Your task to perform on an android device: read, delete, or share a saved page in the chrome app Image 0: 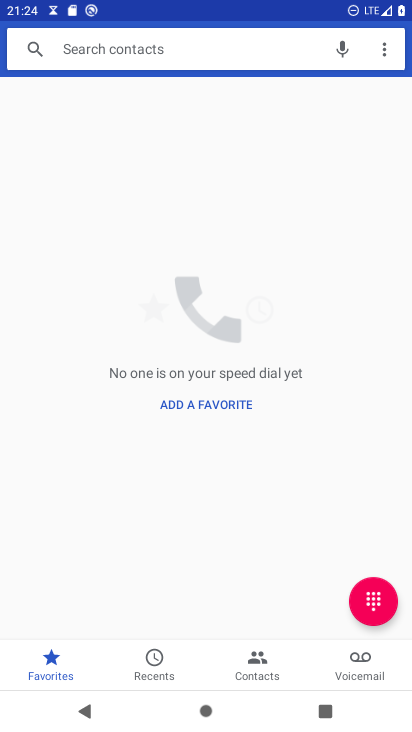
Step 0: press home button
Your task to perform on an android device: read, delete, or share a saved page in the chrome app Image 1: 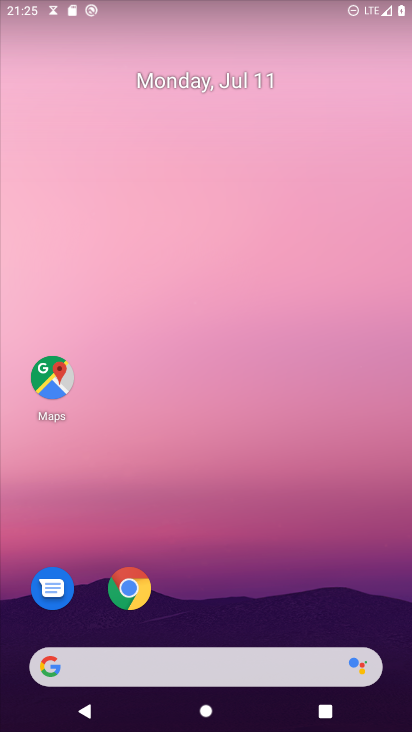
Step 1: press home button
Your task to perform on an android device: read, delete, or share a saved page in the chrome app Image 2: 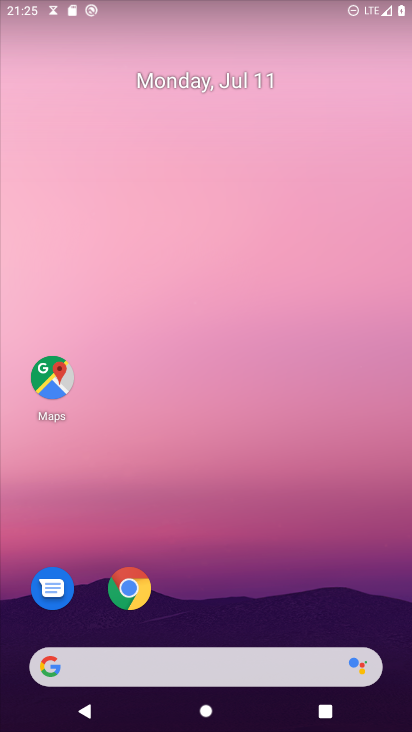
Step 2: drag from (220, 417) to (203, 6)
Your task to perform on an android device: read, delete, or share a saved page in the chrome app Image 3: 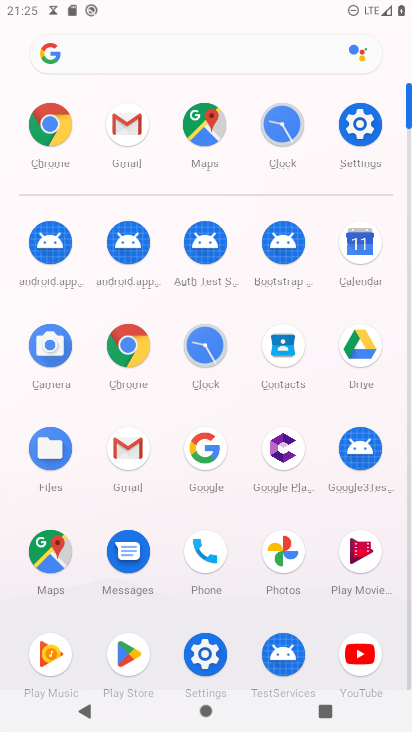
Step 3: click (50, 131)
Your task to perform on an android device: read, delete, or share a saved page in the chrome app Image 4: 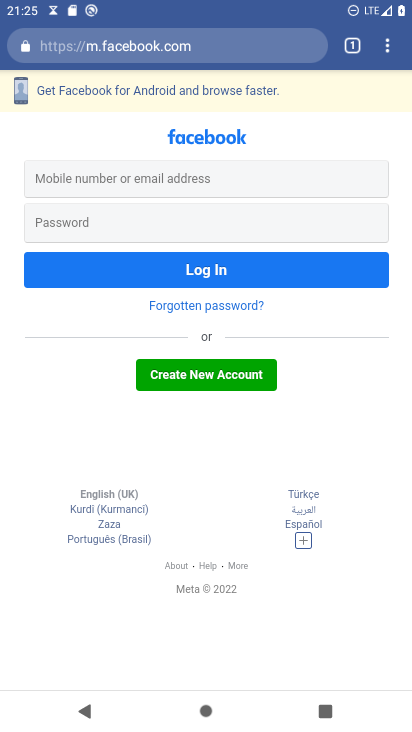
Step 4: press back button
Your task to perform on an android device: read, delete, or share a saved page in the chrome app Image 5: 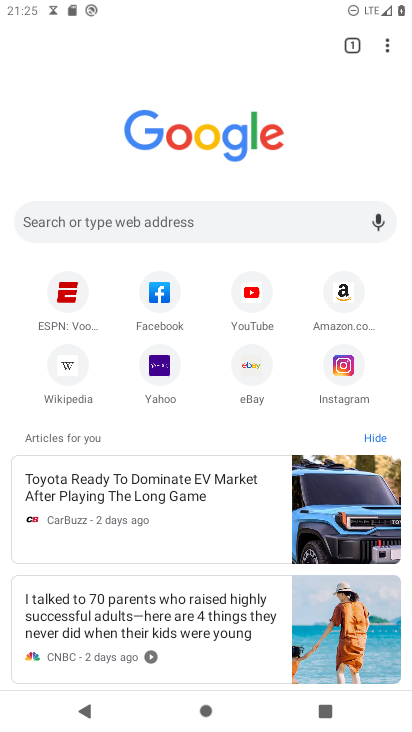
Step 5: drag from (386, 47) to (231, 301)
Your task to perform on an android device: read, delete, or share a saved page in the chrome app Image 6: 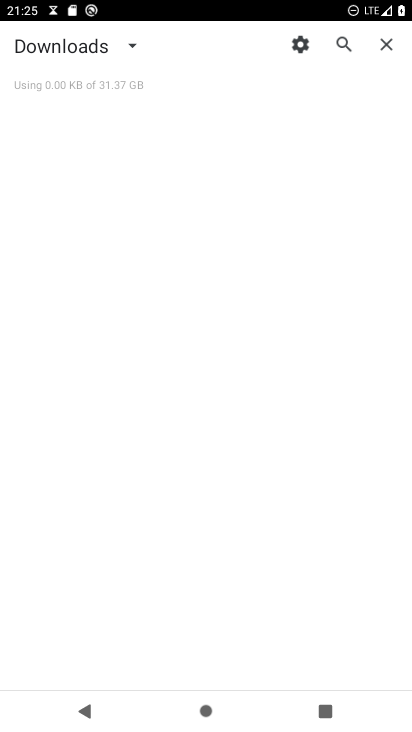
Step 6: click (132, 47)
Your task to perform on an android device: read, delete, or share a saved page in the chrome app Image 7: 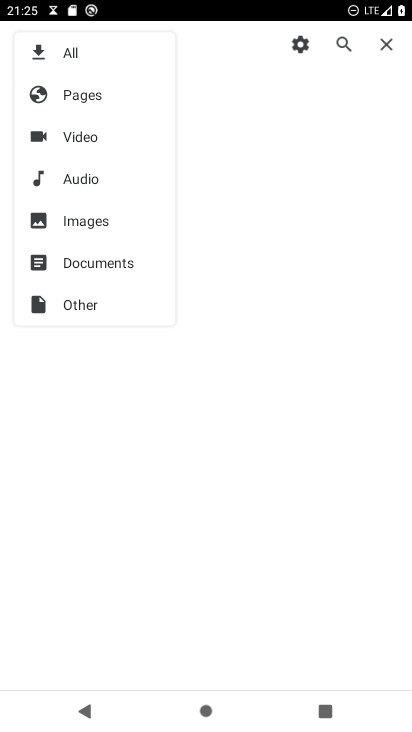
Step 7: click (73, 93)
Your task to perform on an android device: read, delete, or share a saved page in the chrome app Image 8: 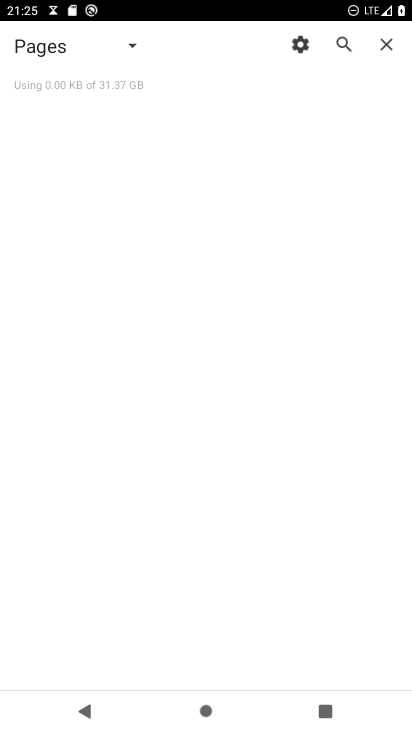
Step 8: task complete